Your task to perform on an android device: Go to display settings Image 0: 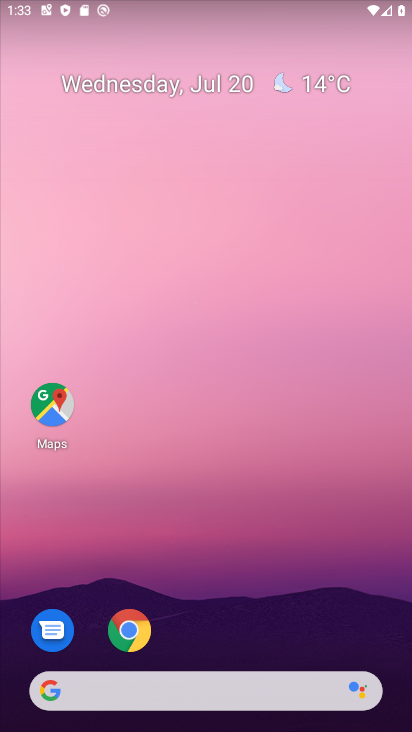
Step 0: drag from (260, 706) to (169, 117)
Your task to perform on an android device: Go to display settings Image 1: 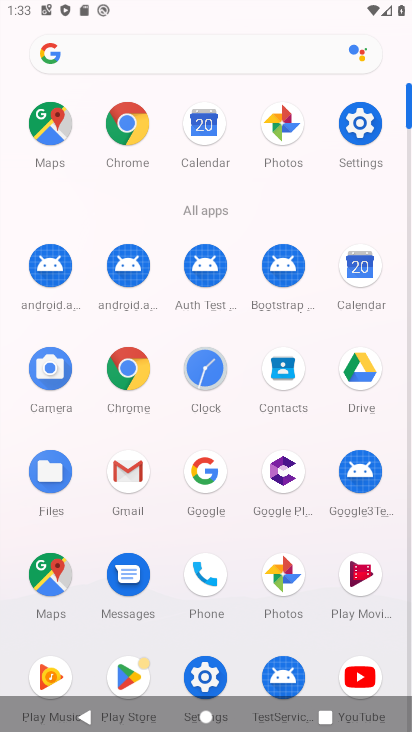
Step 1: click (356, 132)
Your task to perform on an android device: Go to display settings Image 2: 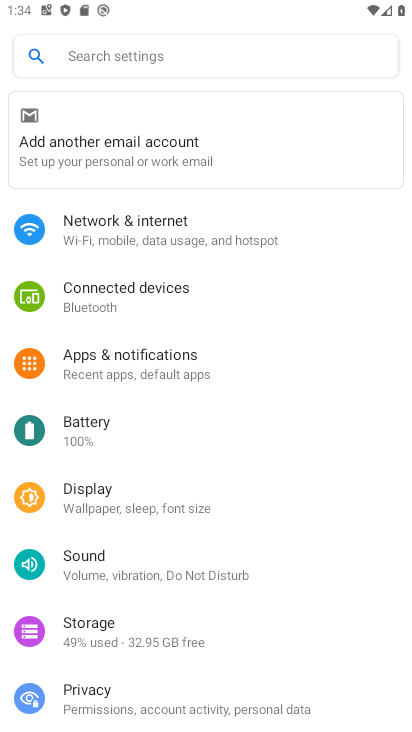
Step 2: click (68, 506)
Your task to perform on an android device: Go to display settings Image 3: 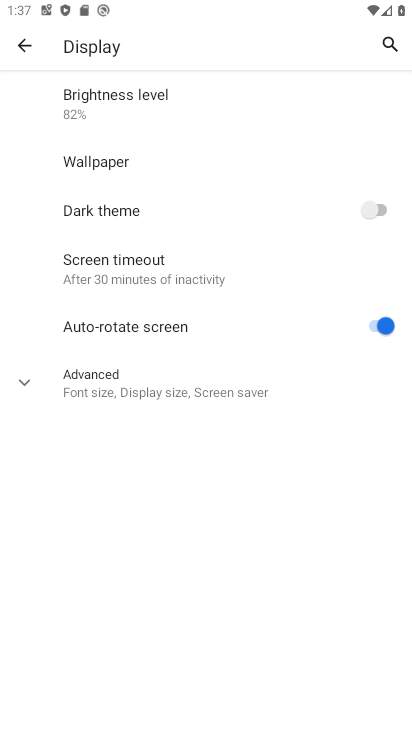
Step 3: task complete